Your task to perform on an android device: Open the web browser Image 0: 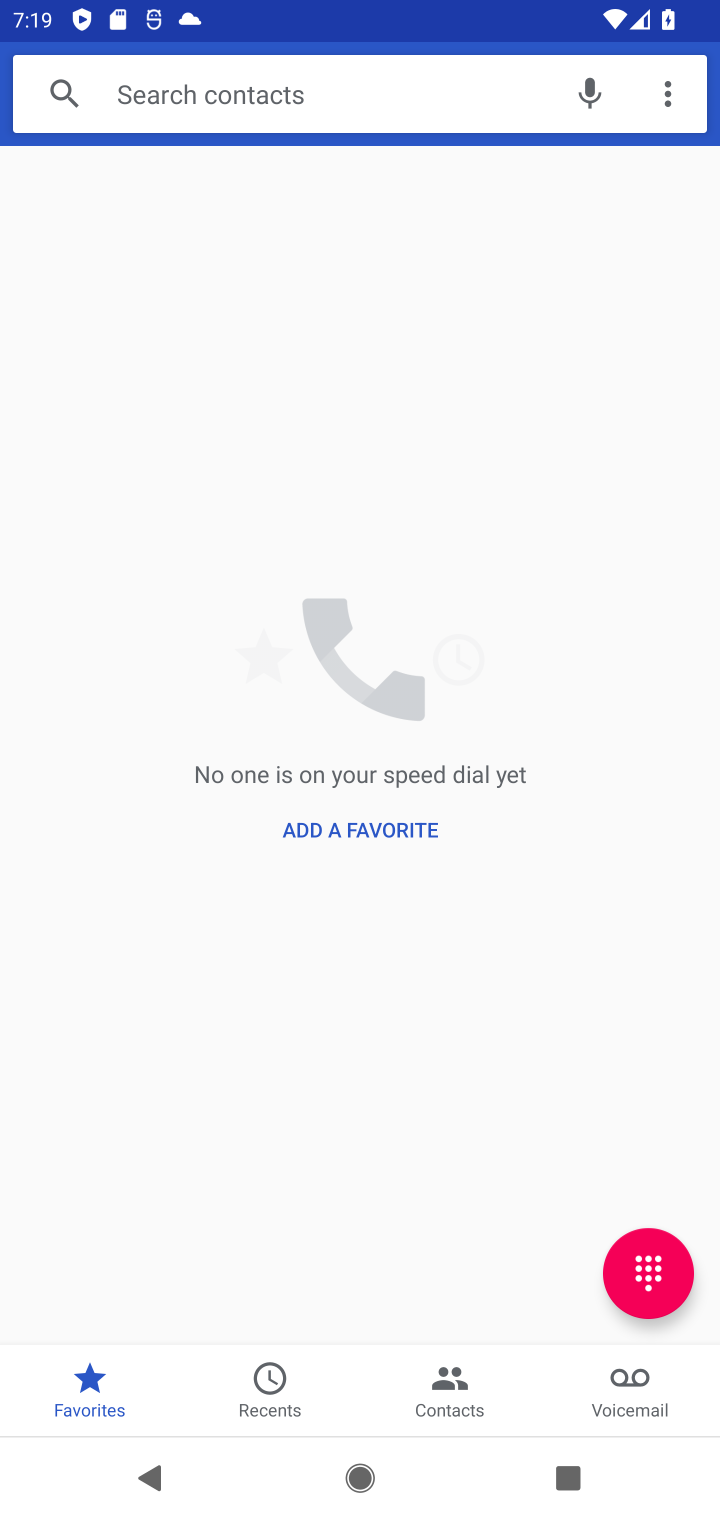
Step 0: press home button
Your task to perform on an android device: Open the web browser Image 1: 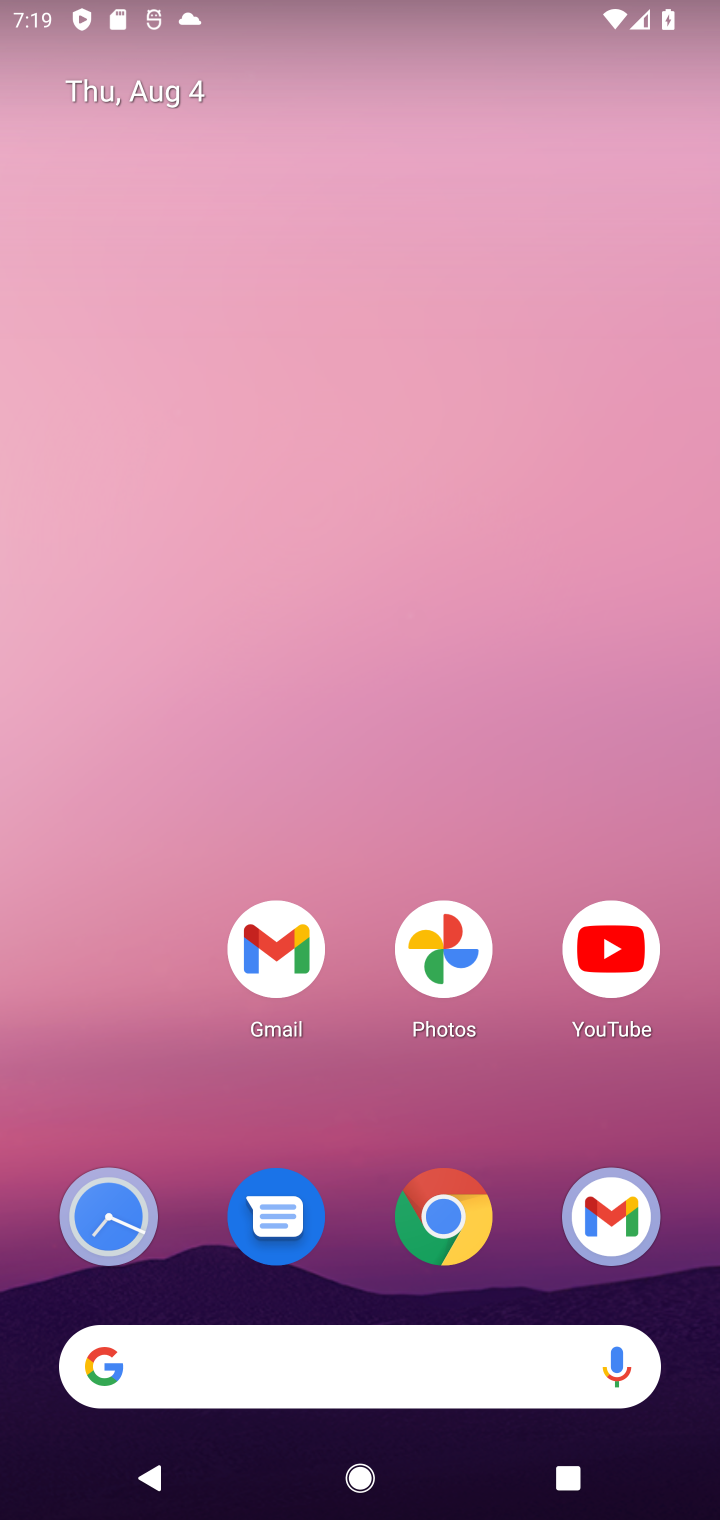
Step 1: click (454, 1228)
Your task to perform on an android device: Open the web browser Image 2: 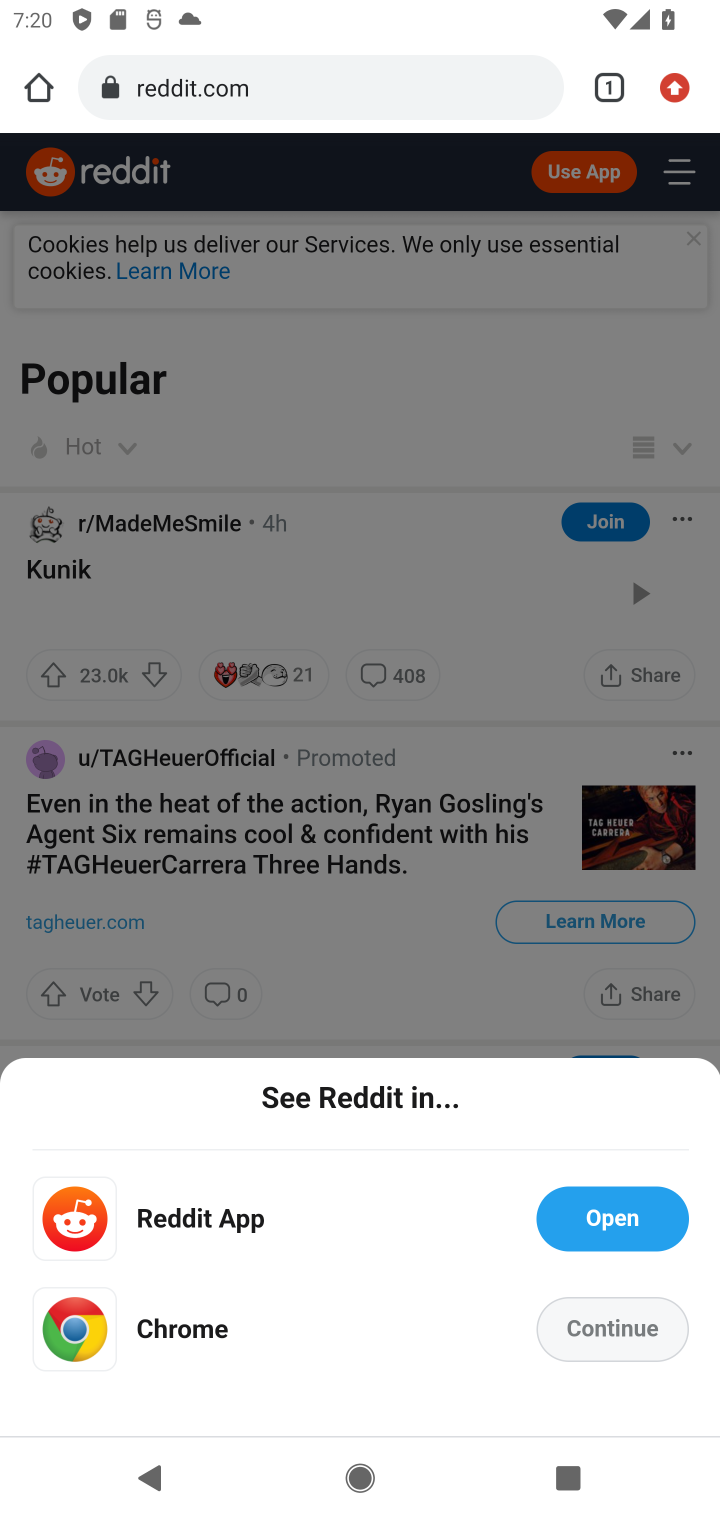
Step 2: task complete